Your task to perform on an android device: Search for hotels in Seattle Image 0: 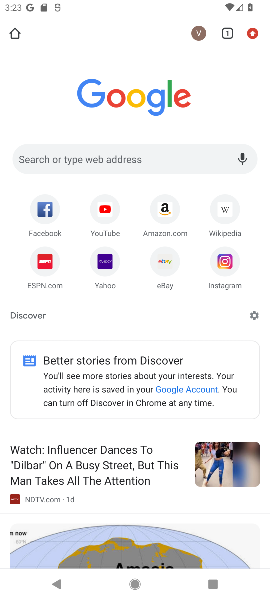
Step 0: press home button
Your task to perform on an android device: Search for hotels in Seattle Image 1: 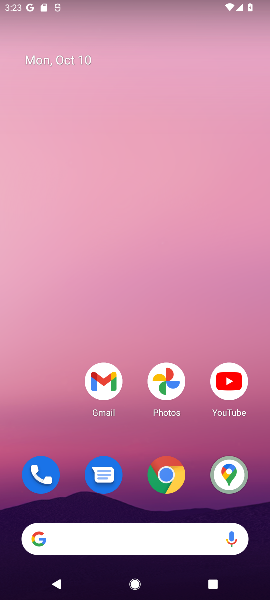
Step 1: click (148, 328)
Your task to perform on an android device: Search for hotels in Seattle Image 2: 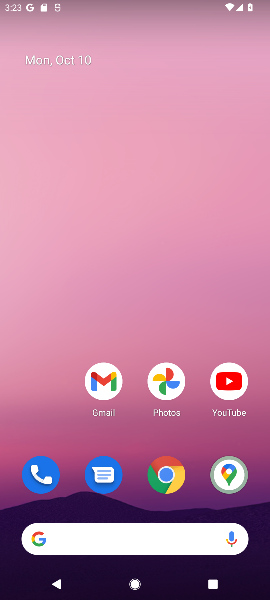
Step 2: click (147, 329)
Your task to perform on an android device: Search for hotels in Seattle Image 3: 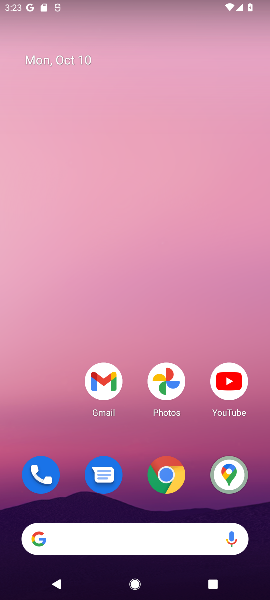
Step 3: drag from (124, 504) to (122, 220)
Your task to perform on an android device: Search for hotels in Seattle Image 4: 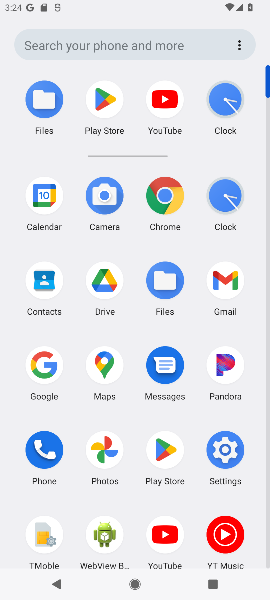
Step 4: click (38, 372)
Your task to perform on an android device: Search for hotels in Seattle Image 5: 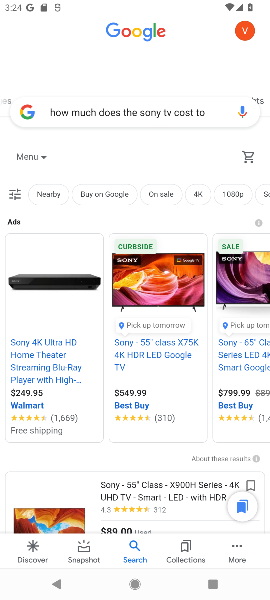
Step 5: click (207, 109)
Your task to perform on an android device: Search for hotels in Seattle Image 6: 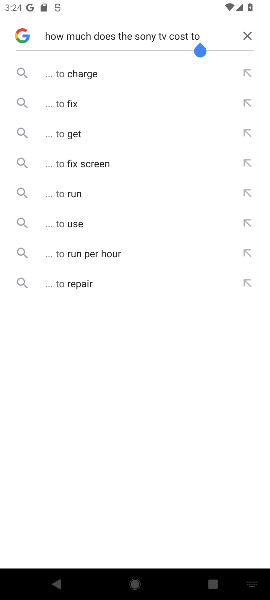
Step 6: click (249, 39)
Your task to perform on an android device: Search for hotels in Seattle Image 7: 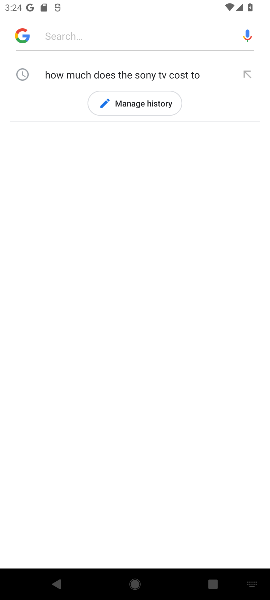
Step 7: type "hotels in Seattle"
Your task to perform on an android device: Search for hotels in Seattle Image 8: 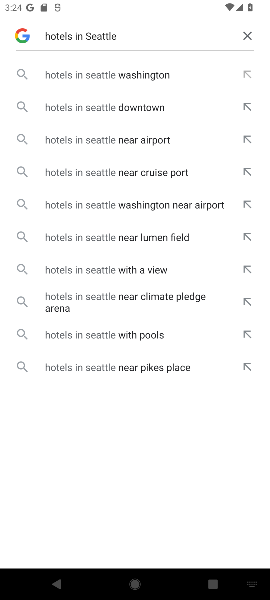
Step 8: click (100, 137)
Your task to perform on an android device: Search for hotels in Seattle Image 9: 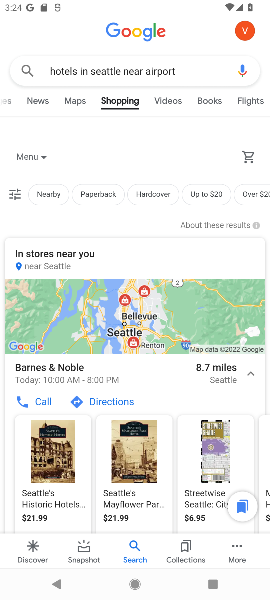
Step 9: drag from (83, 101) to (268, 124)
Your task to perform on an android device: Search for hotels in Seattle Image 10: 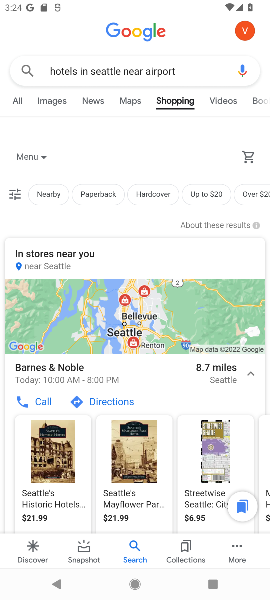
Step 10: click (9, 101)
Your task to perform on an android device: Search for hotels in Seattle Image 11: 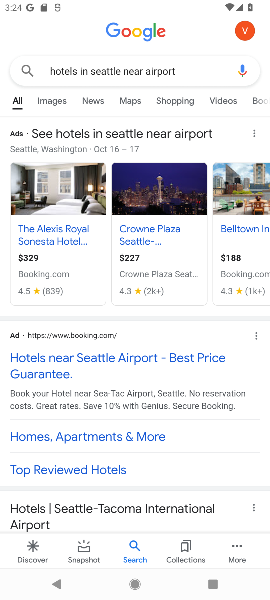
Step 11: task complete